Your task to perform on an android device: toggle improve location accuracy Image 0: 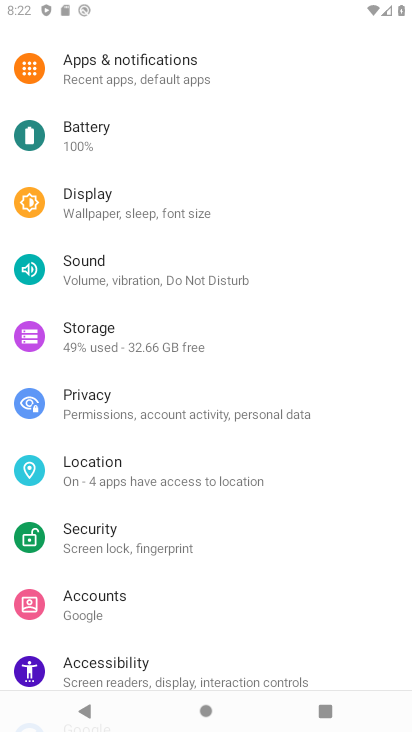
Step 0: click (158, 475)
Your task to perform on an android device: toggle improve location accuracy Image 1: 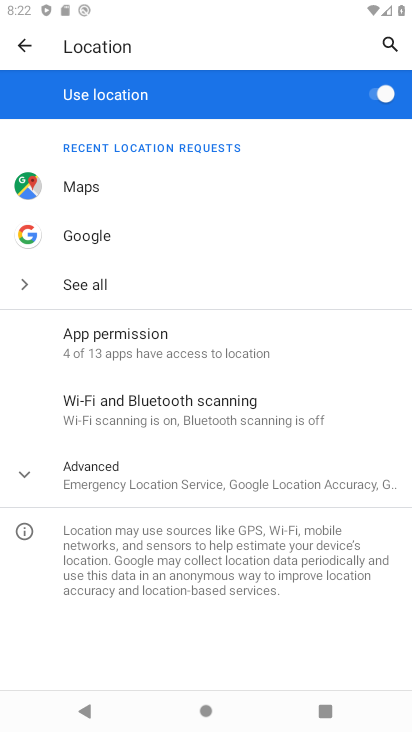
Step 1: click (212, 483)
Your task to perform on an android device: toggle improve location accuracy Image 2: 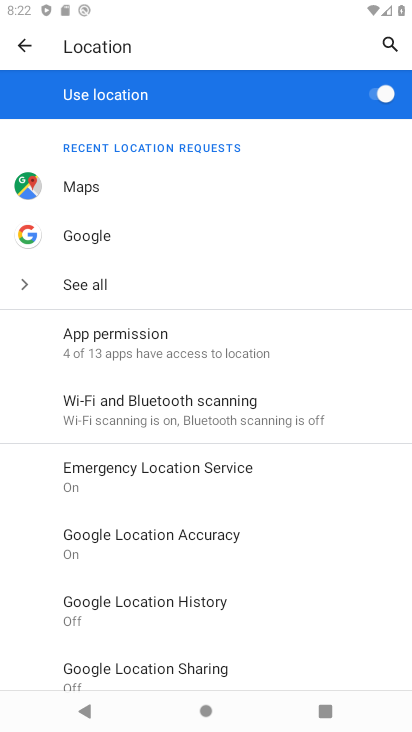
Step 2: click (229, 537)
Your task to perform on an android device: toggle improve location accuracy Image 3: 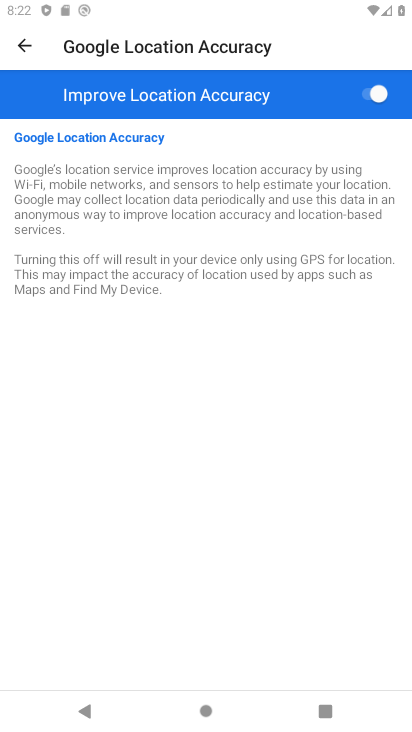
Step 3: click (363, 103)
Your task to perform on an android device: toggle improve location accuracy Image 4: 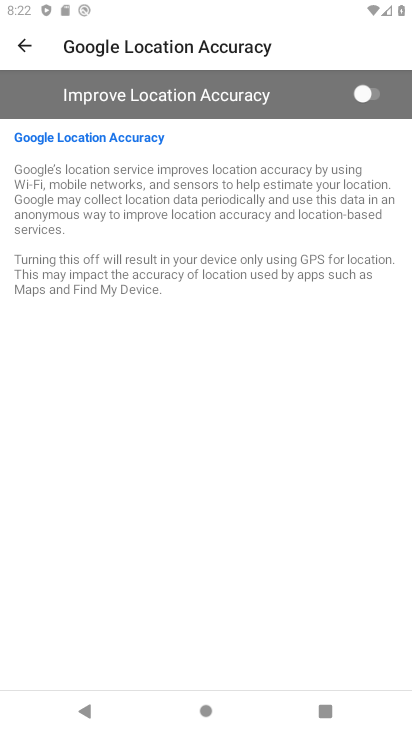
Step 4: task complete